Your task to perform on an android device: change timer sound Image 0: 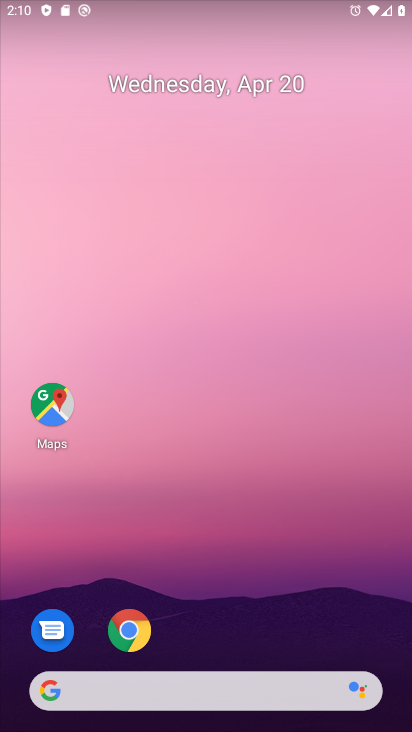
Step 0: drag from (229, 621) to (200, 115)
Your task to perform on an android device: change timer sound Image 1: 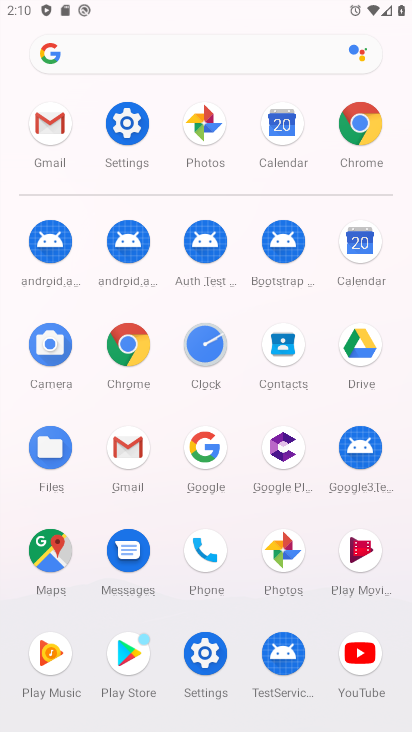
Step 1: click (202, 348)
Your task to perform on an android device: change timer sound Image 2: 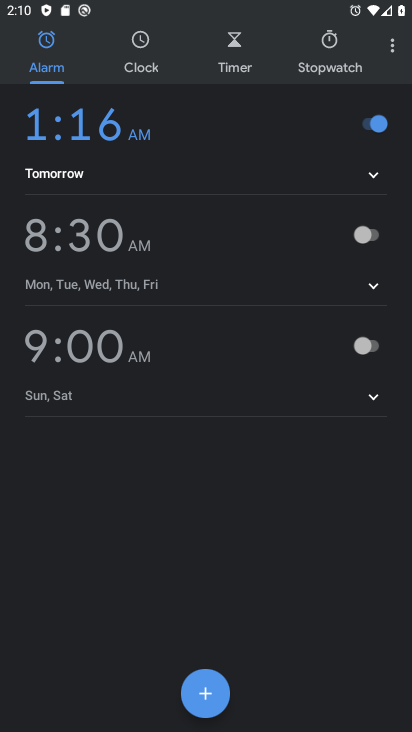
Step 2: click (393, 42)
Your task to perform on an android device: change timer sound Image 3: 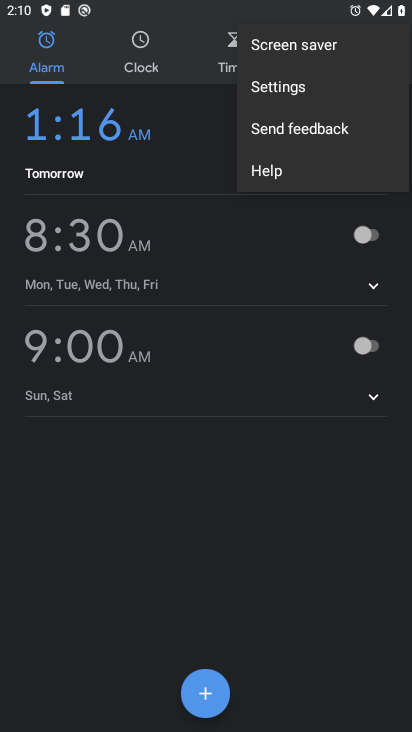
Step 3: click (288, 91)
Your task to perform on an android device: change timer sound Image 4: 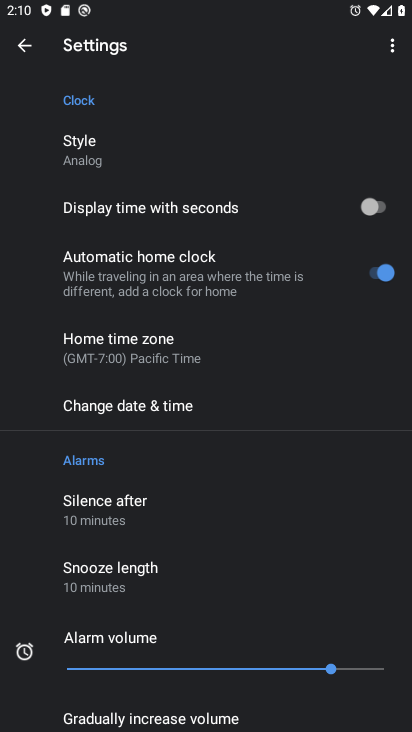
Step 4: drag from (164, 518) to (148, 225)
Your task to perform on an android device: change timer sound Image 5: 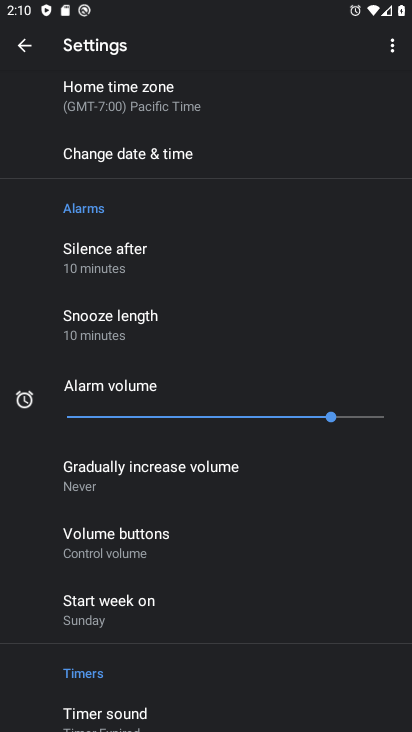
Step 5: click (117, 716)
Your task to perform on an android device: change timer sound Image 6: 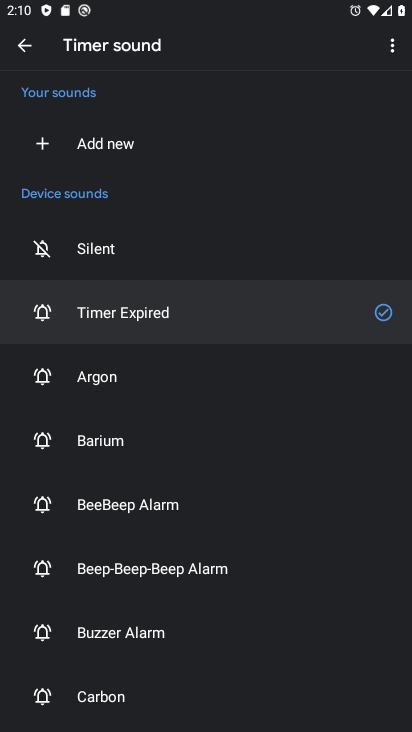
Step 6: click (100, 380)
Your task to perform on an android device: change timer sound Image 7: 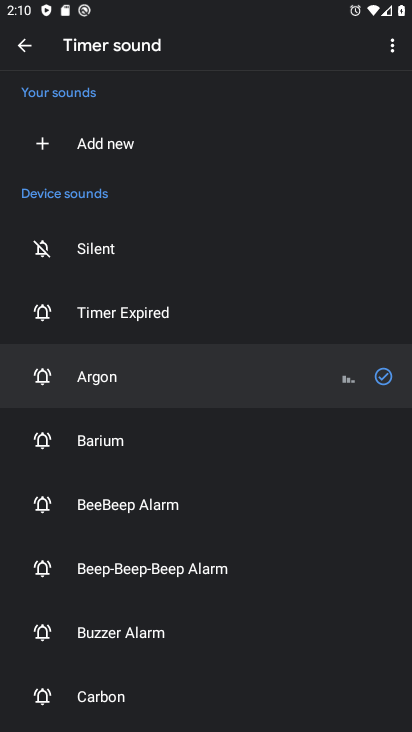
Step 7: task complete